Your task to perform on an android device: show emergency info Image 0: 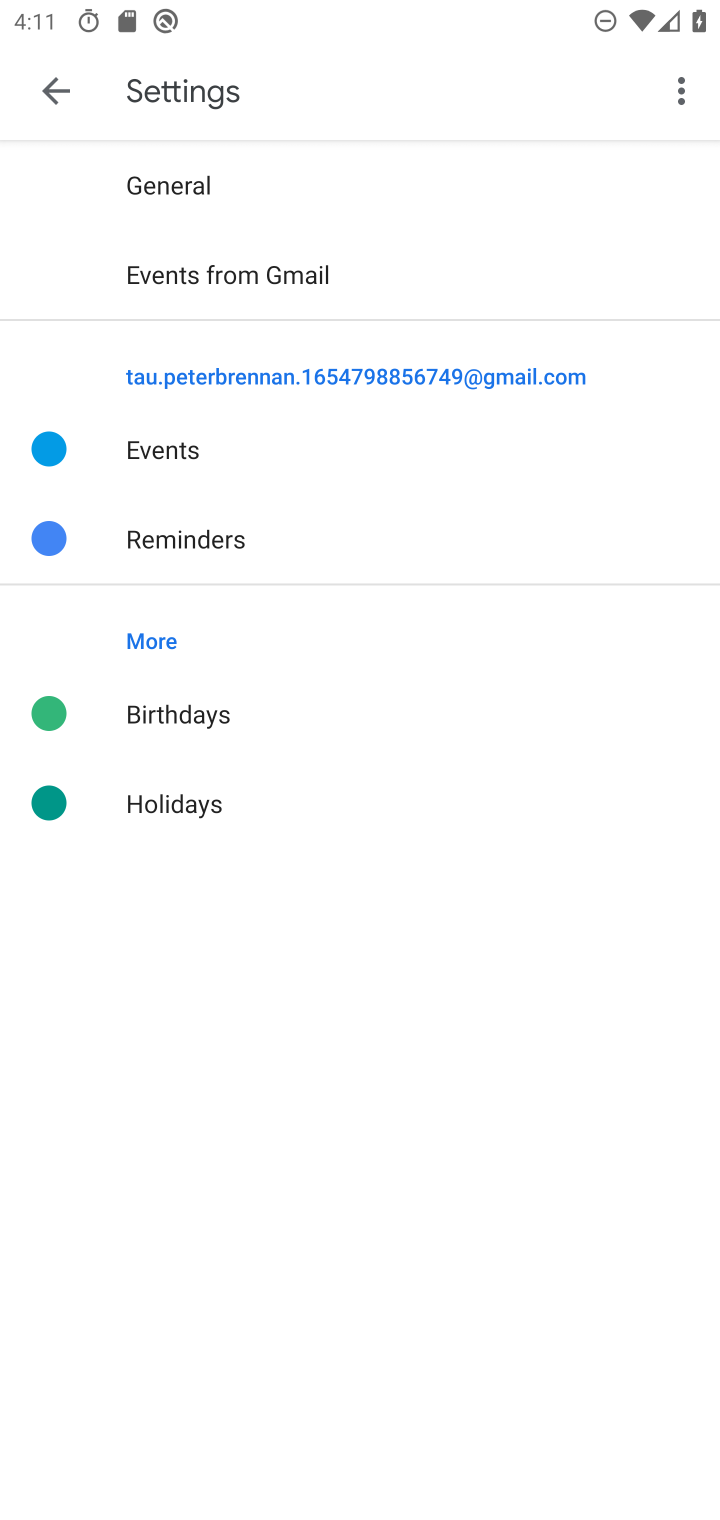
Step 0: press back button
Your task to perform on an android device: show emergency info Image 1: 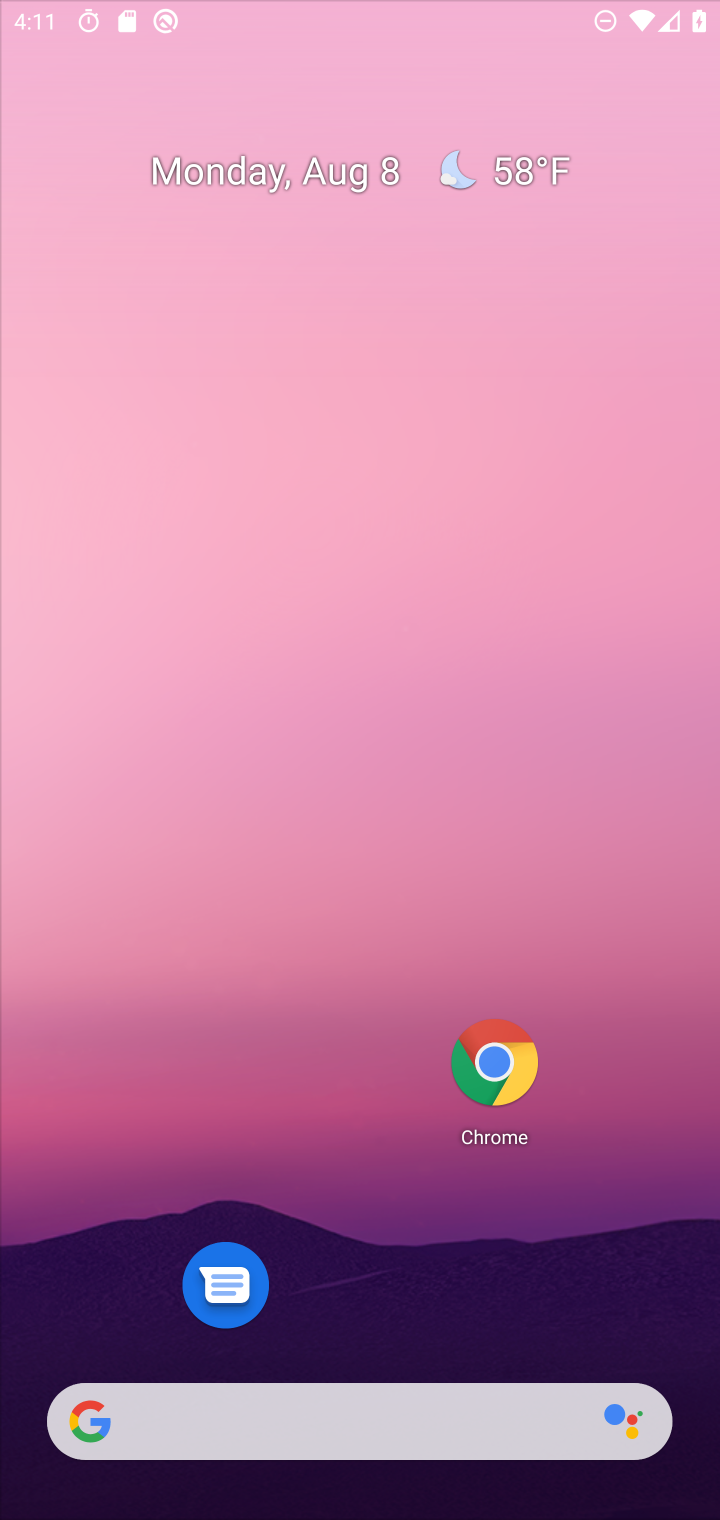
Step 1: drag from (290, 1311) to (348, 63)
Your task to perform on an android device: show emergency info Image 2: 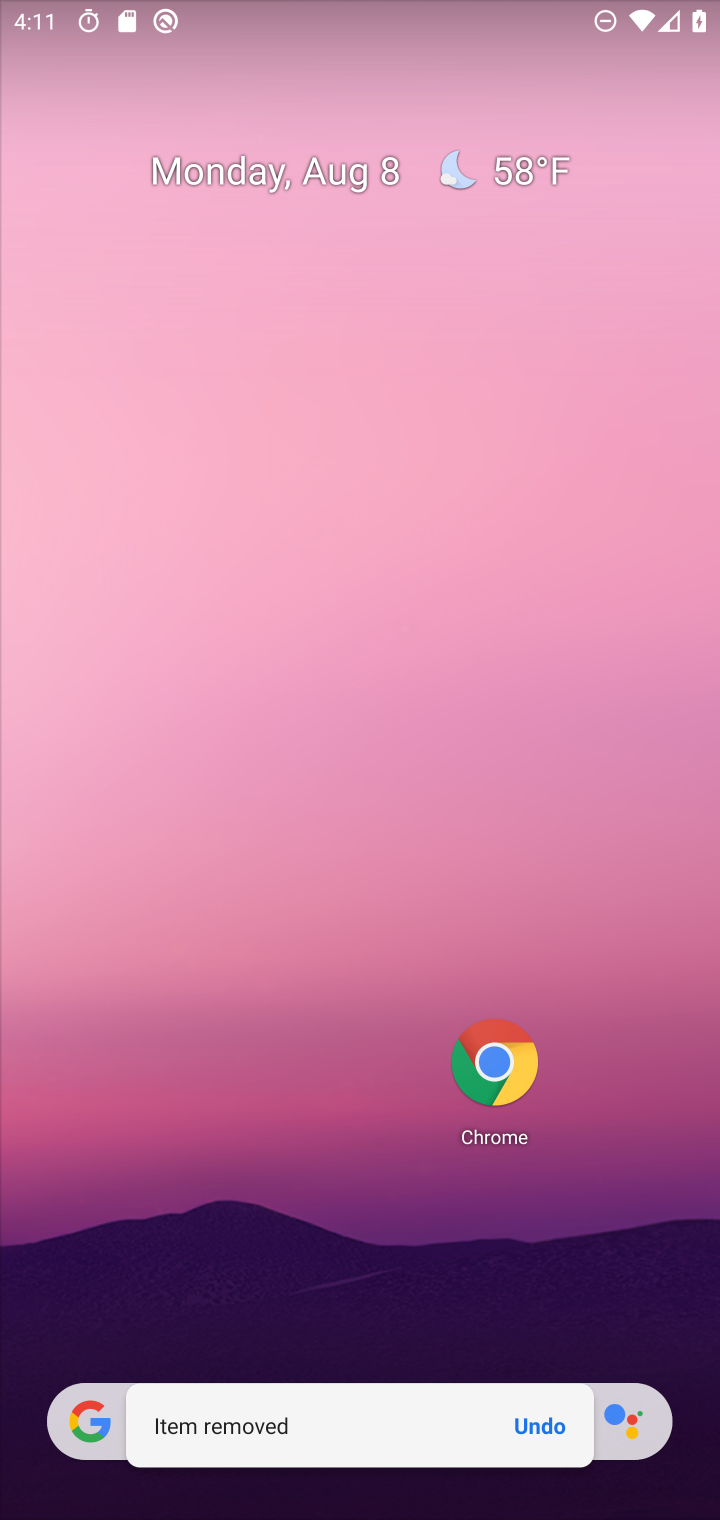
Step 2: drag from (290, 1331) to (453, 42)
Your task to perform on an android device: show emergency info Image 3: 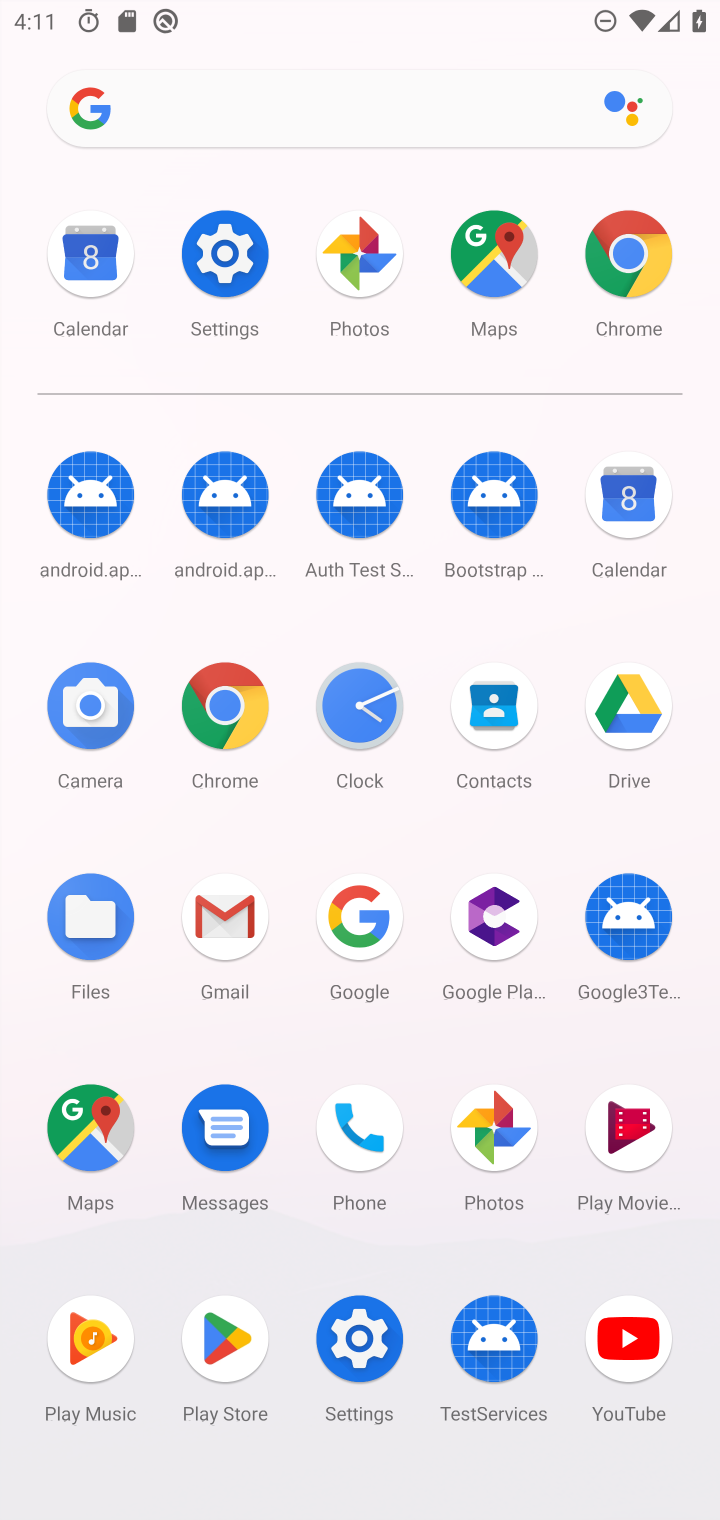
Step 3: click (219, 246)
Your task to perform on an android device: show emergency info Image 4: 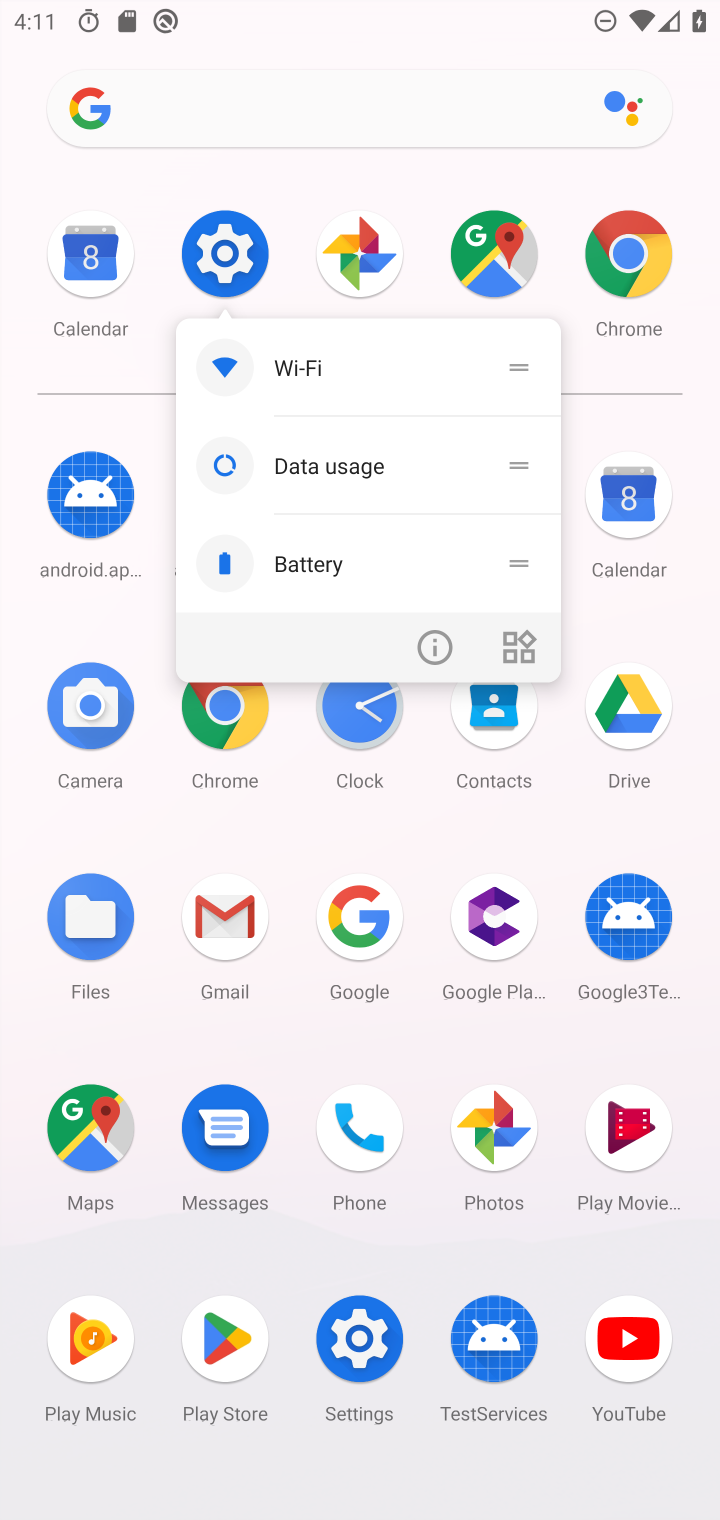
Step 4: click (228, 251)
Your task to perform on an android device: show emergency info Image 5: 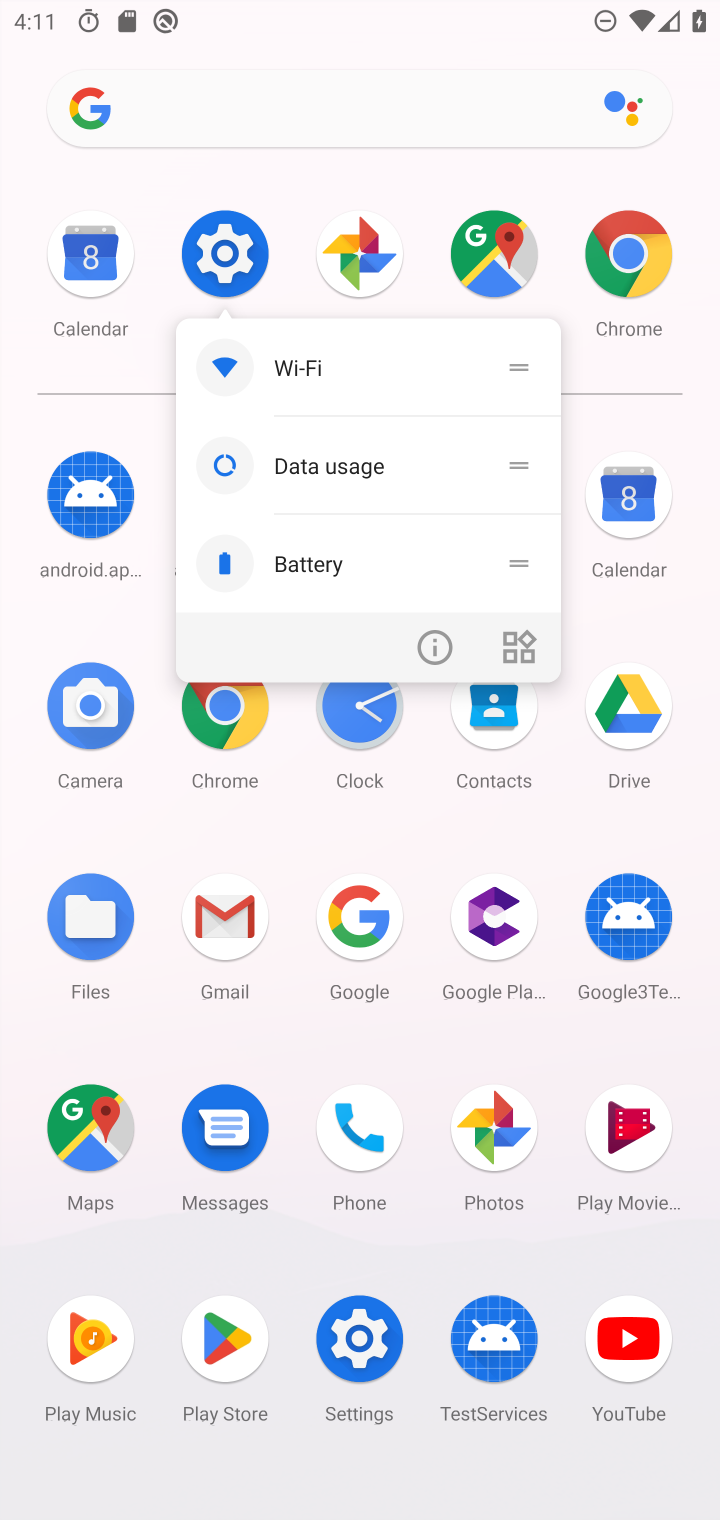
Step 5: click (230, 251)
Your task to perform on an android device: show emergency info Image 6: 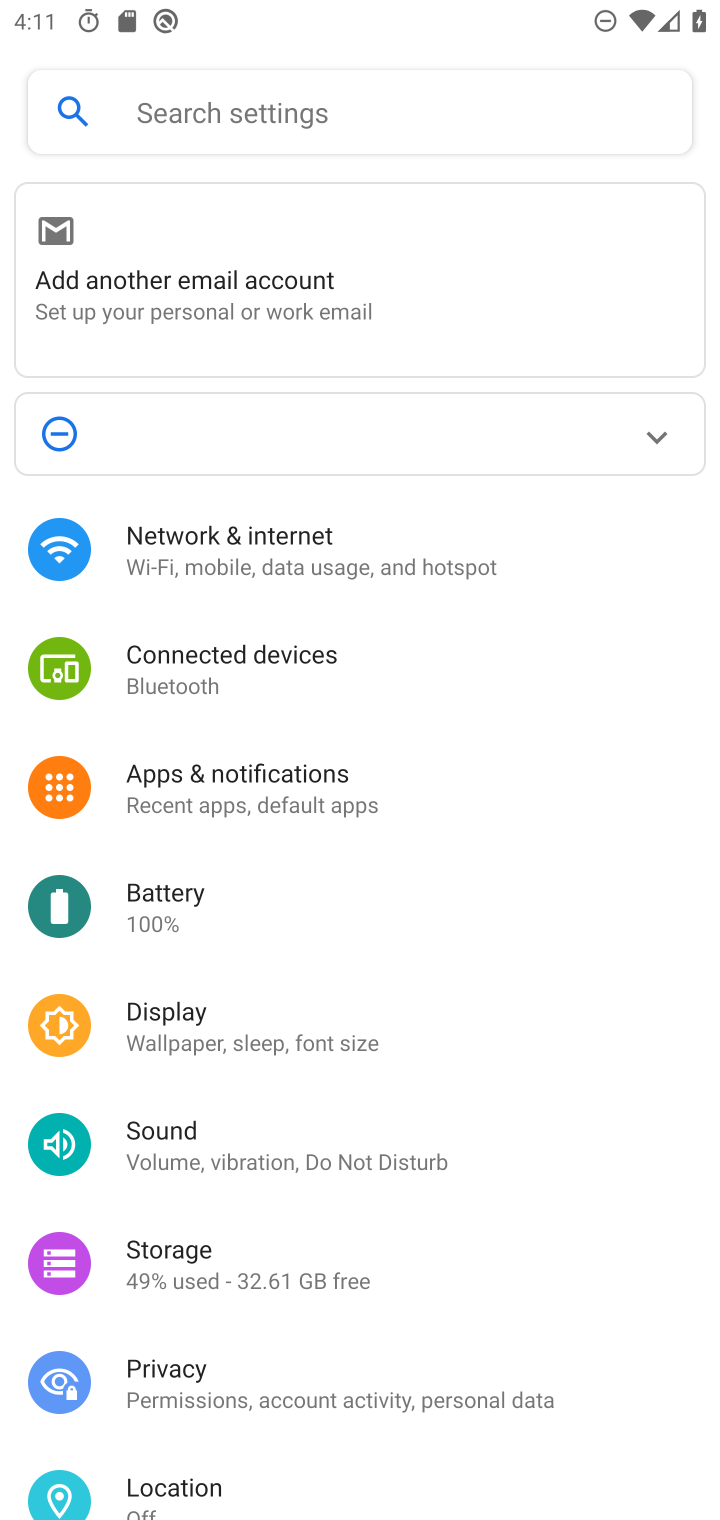
Step 6: drag from (333, 1457) to (360, 1393)
Your task to perform on an android device: show emergency info Image 7: 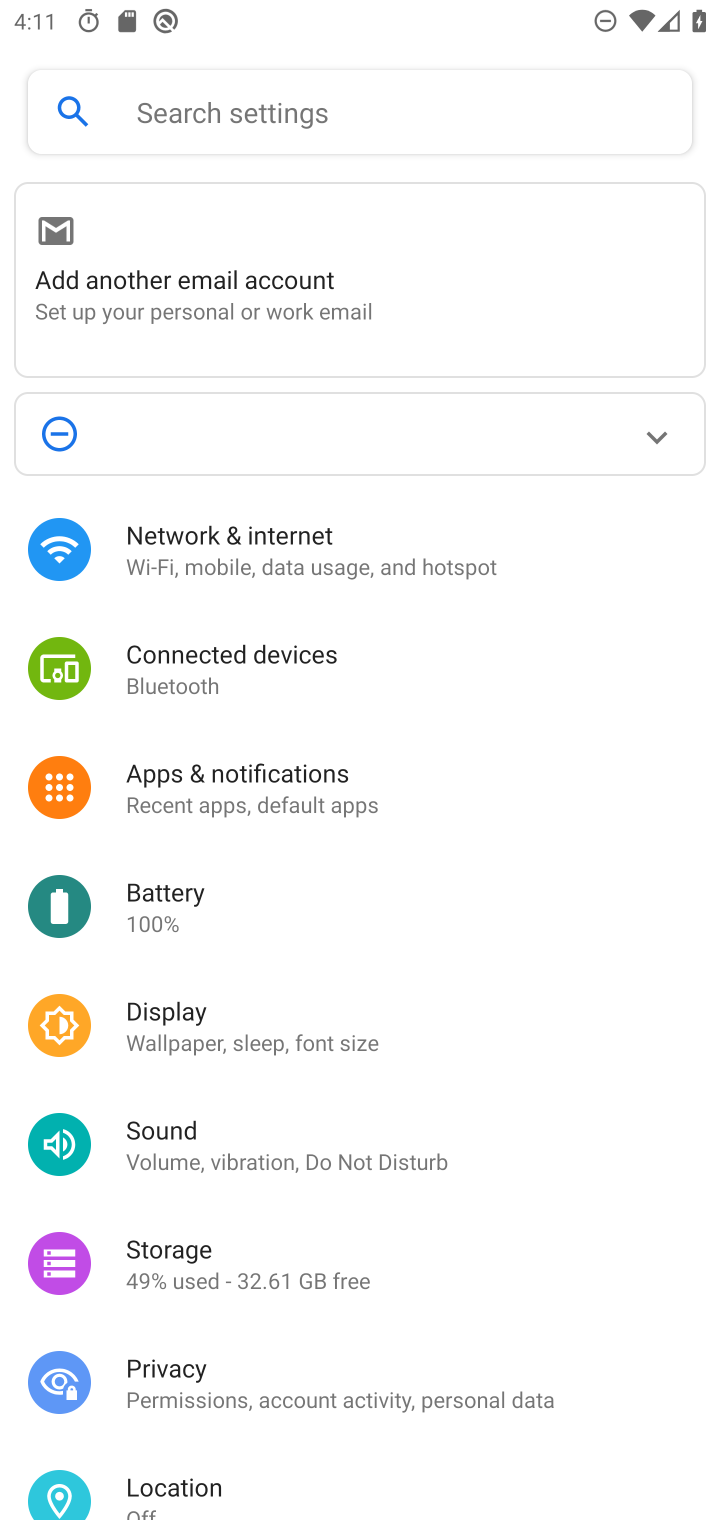
Step 7: drag from (246, 1450) to (506, 139)
Your task to perform on an android device: show emergency info Image 8: 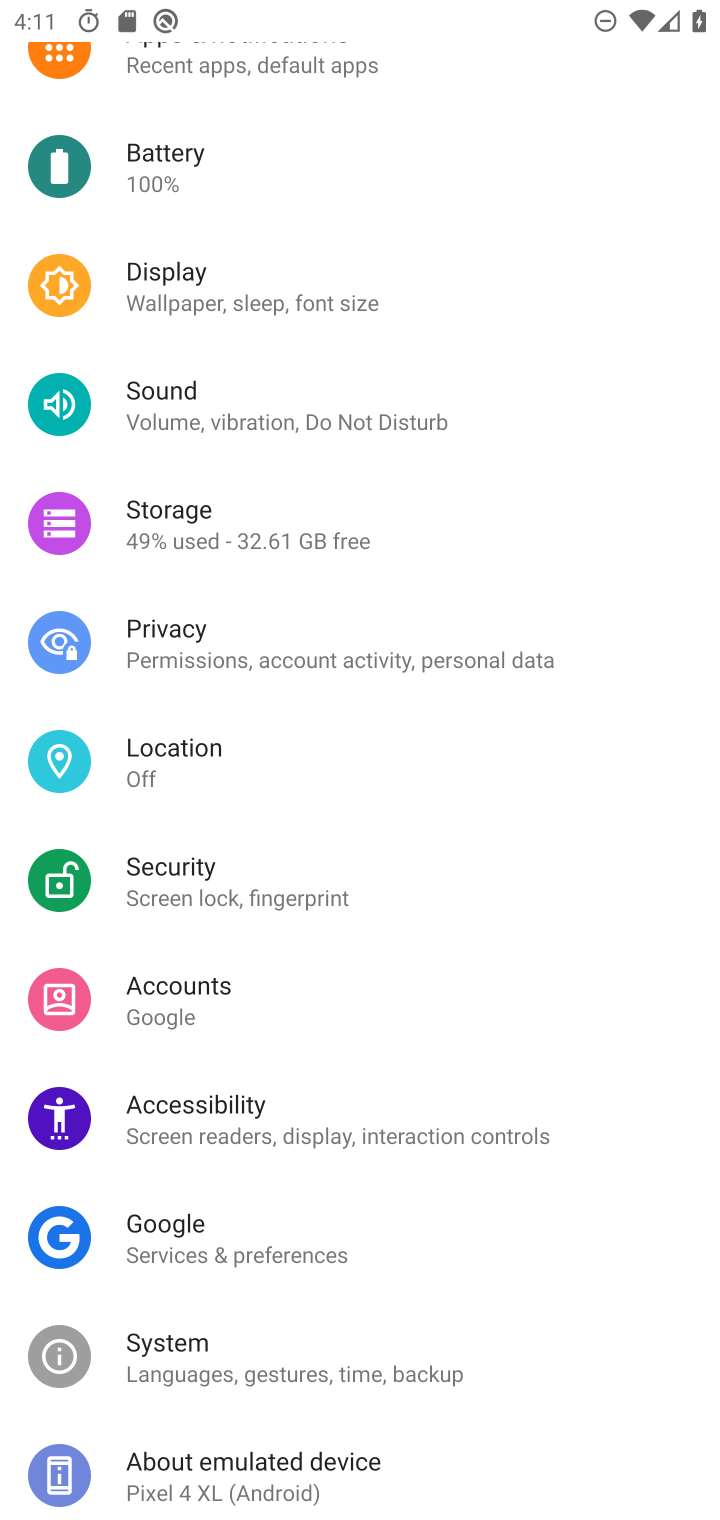
Step 8: drag from (315, 1343) to (535, 74)
Your task to perform on an android device: show emergency info Image 9: 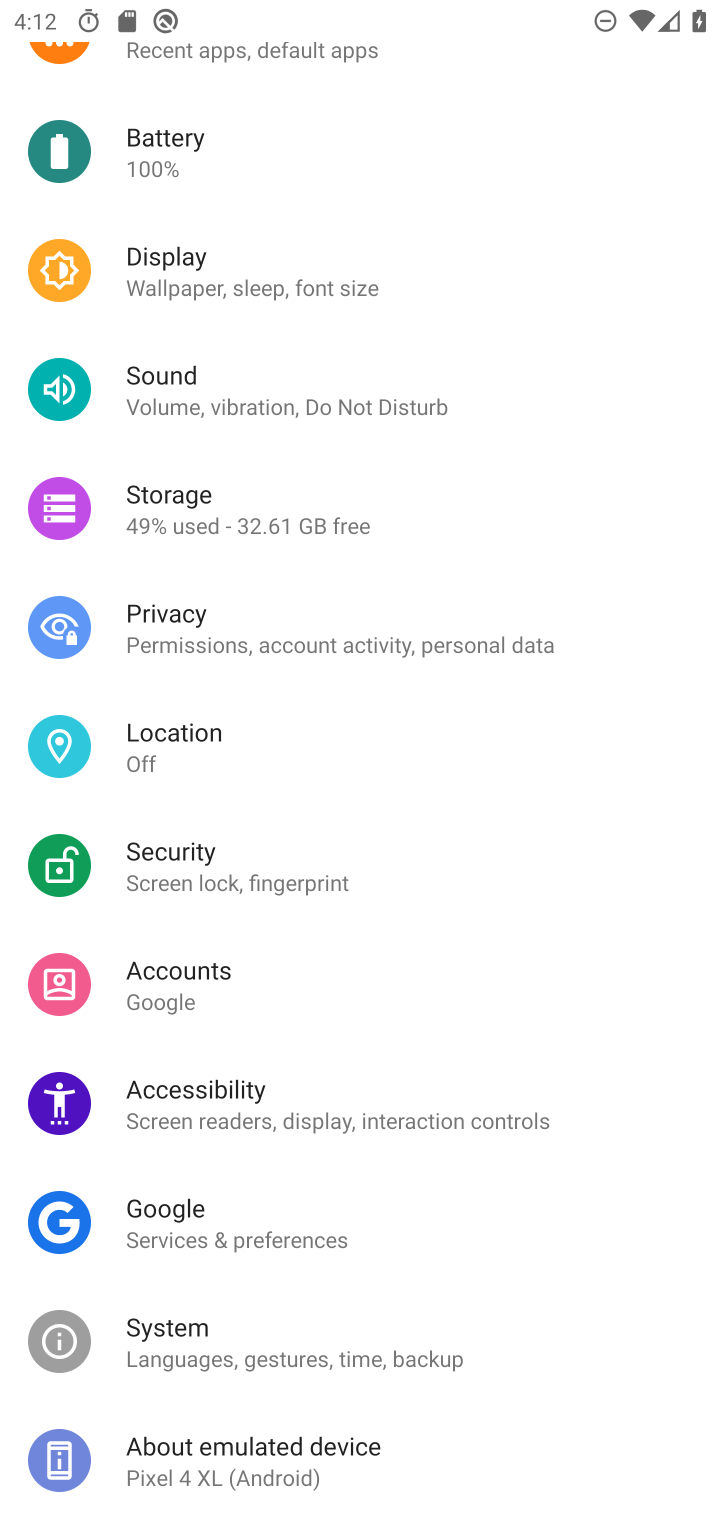
Step 9: click (297, 1468)
Your task to perform on an android device: show emergency info Image 10: 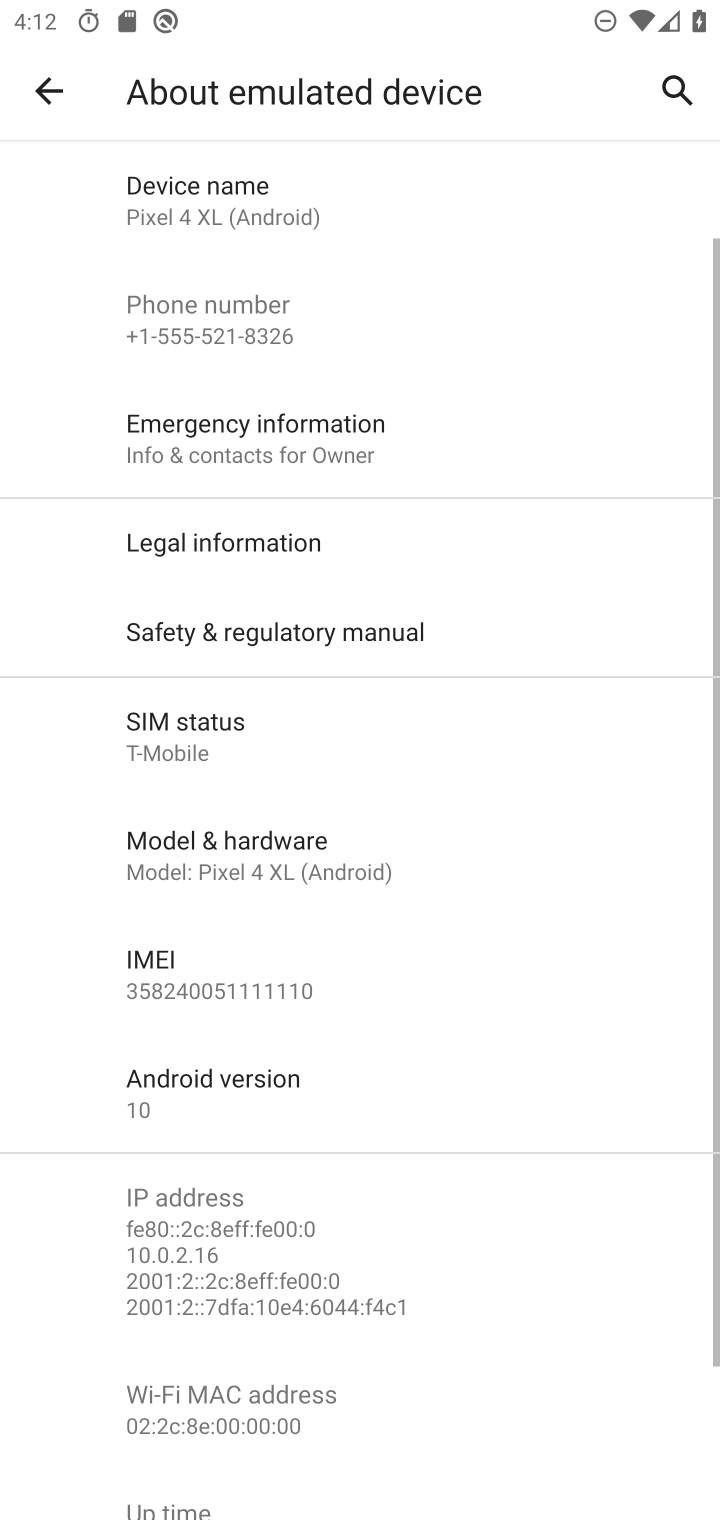
Step 10: click (225, 444)
Your task to perform on an android device: show emergency info Image 11: 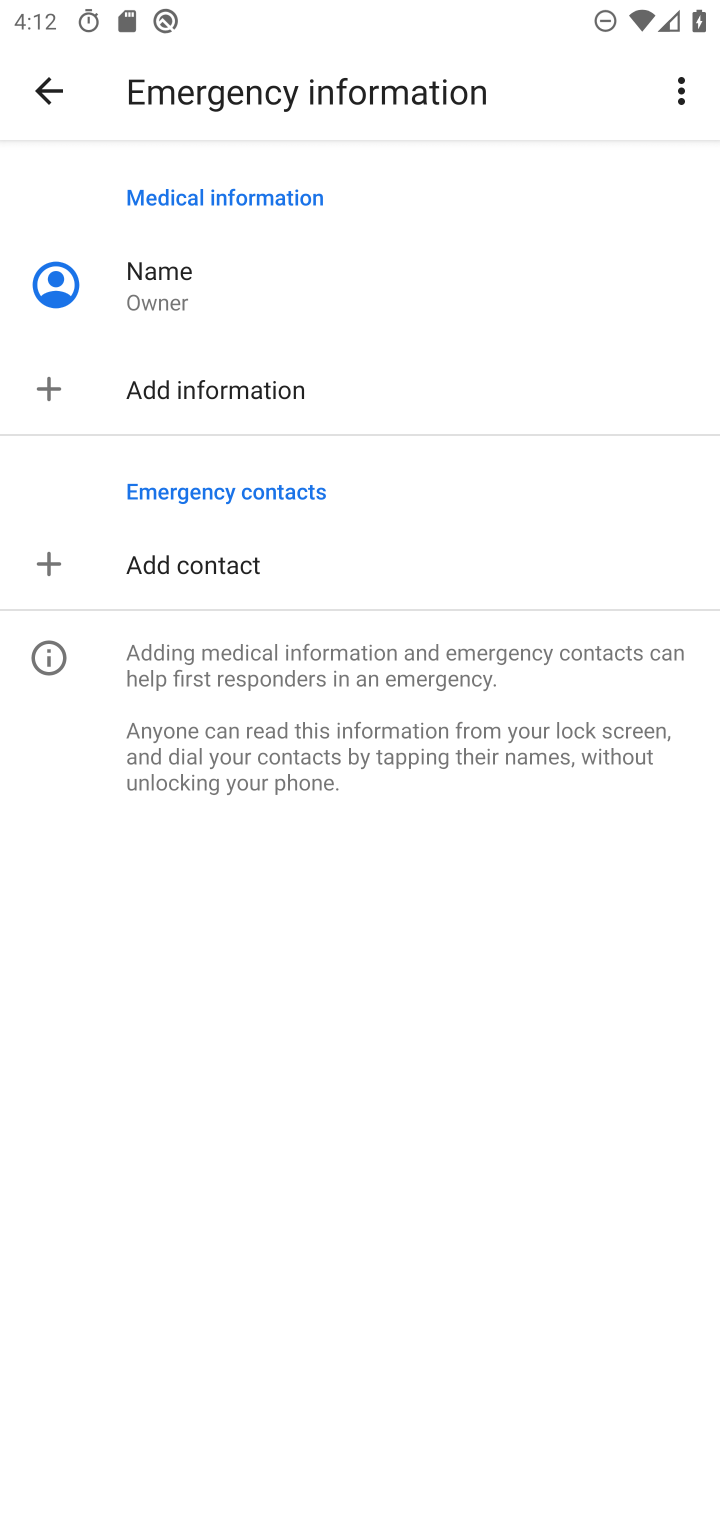
Step 11: task complete